Your task to perform on an android device: What's the news in Taiwan? Image 0: 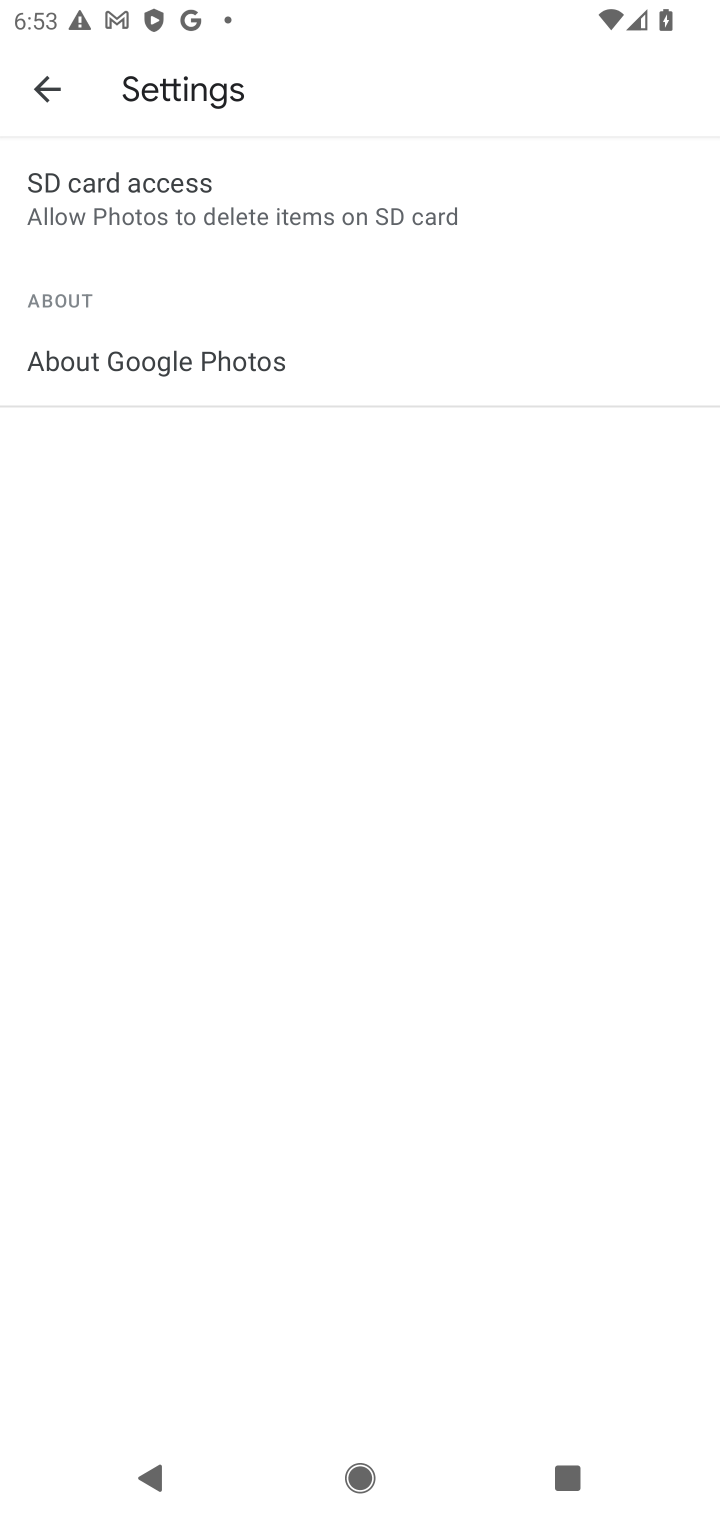
Step 0: press home button
Your task to perform on an android device: What's the news in Taiwan? Image 1: 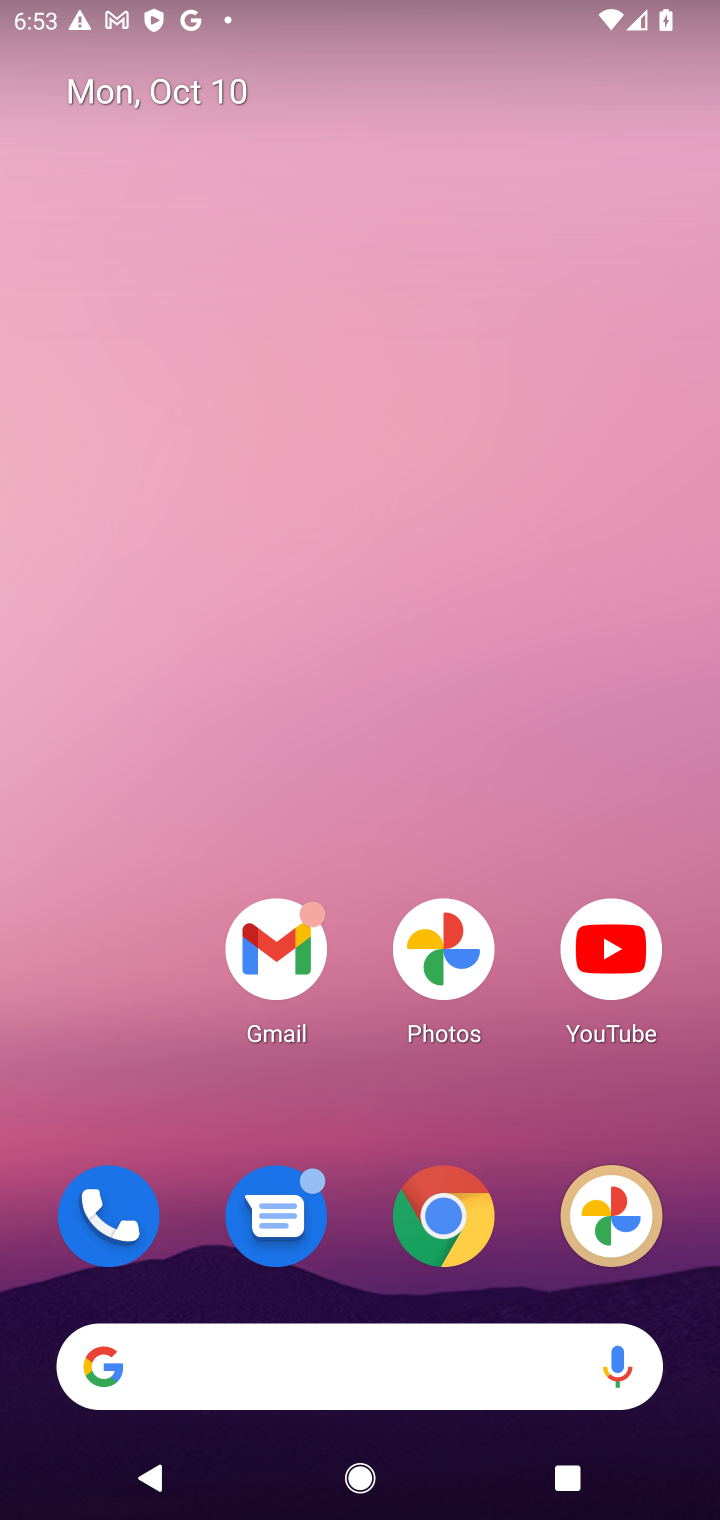
Step 1: drag from (420, 1305) to (420, 361)
Your task to perform on an android device: What's the news in Taiwan? Image 2: 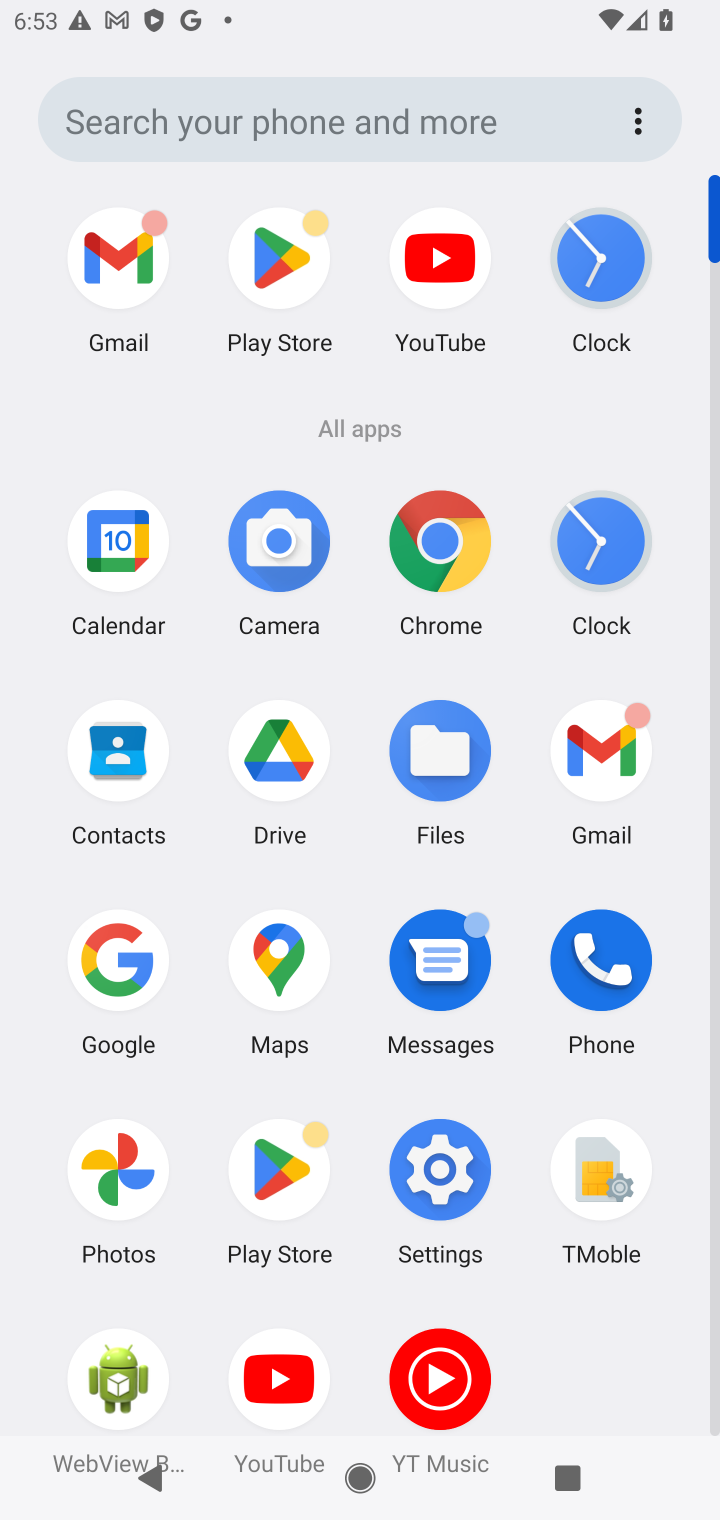
Step 2: click (100, 971)
Your task to perform on an android device: What's the news in Taiwan? Image 3: 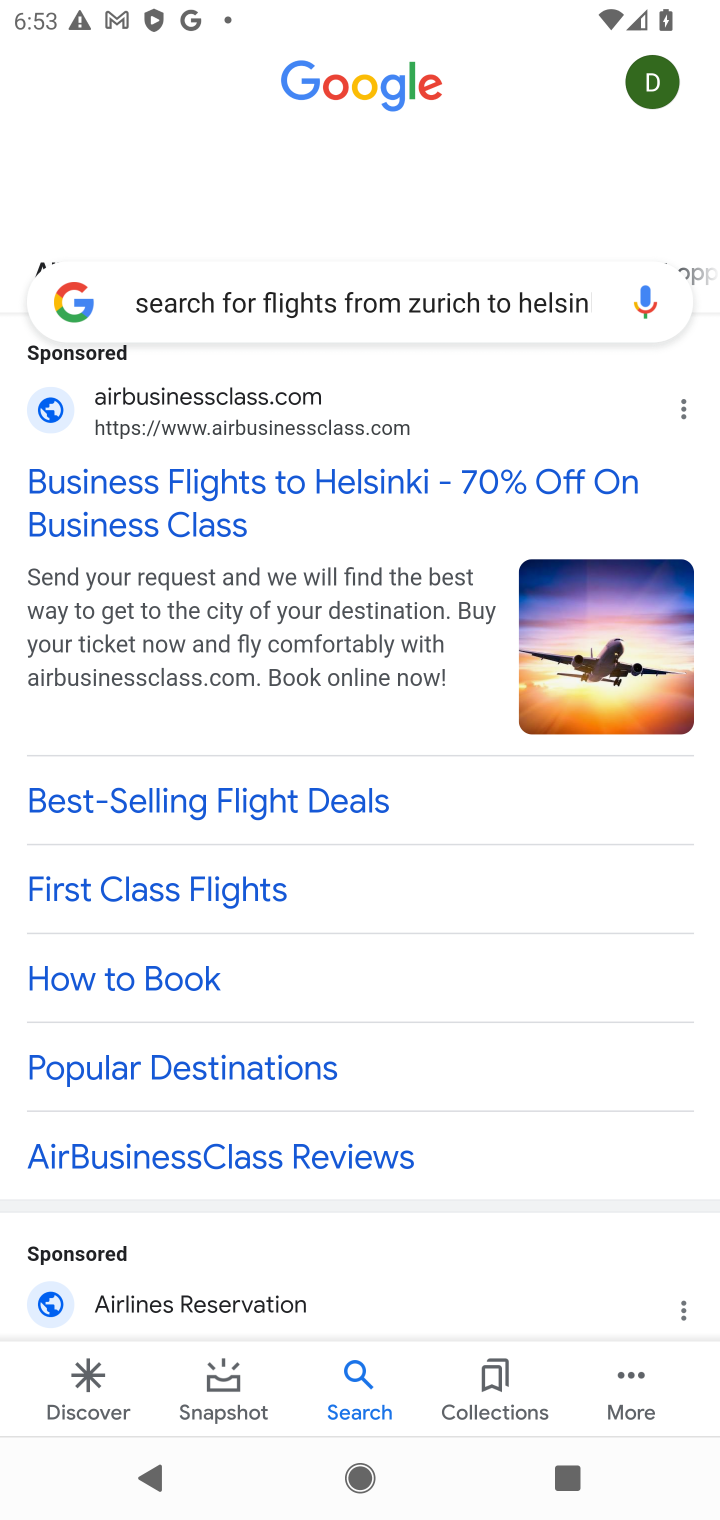
Step 3: click (346, 310)
Your task to perform on an android device: What's the news in Taiwan? Image 4: 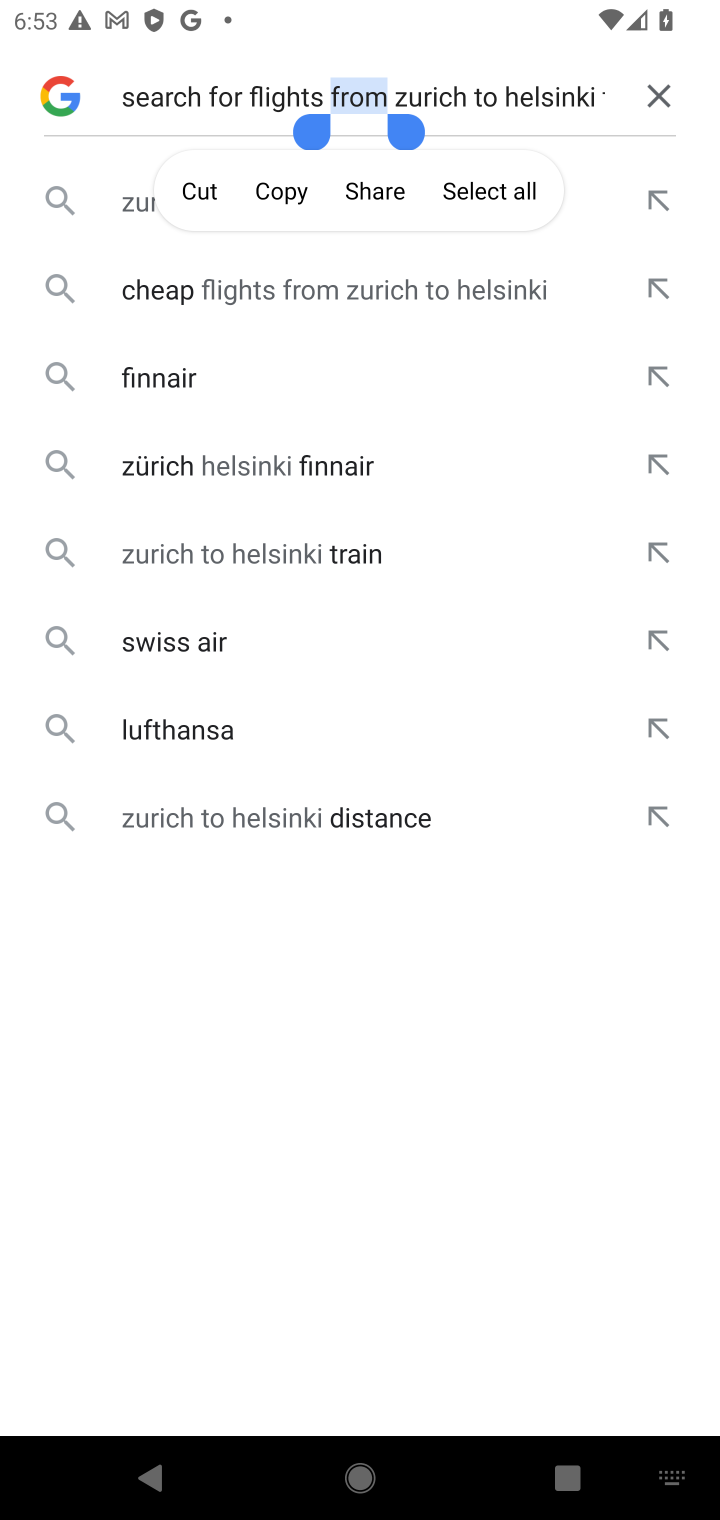
Step 4: click (592, 139)
Your task to perform on an android device: What's the news in Taiwan? Image 5: 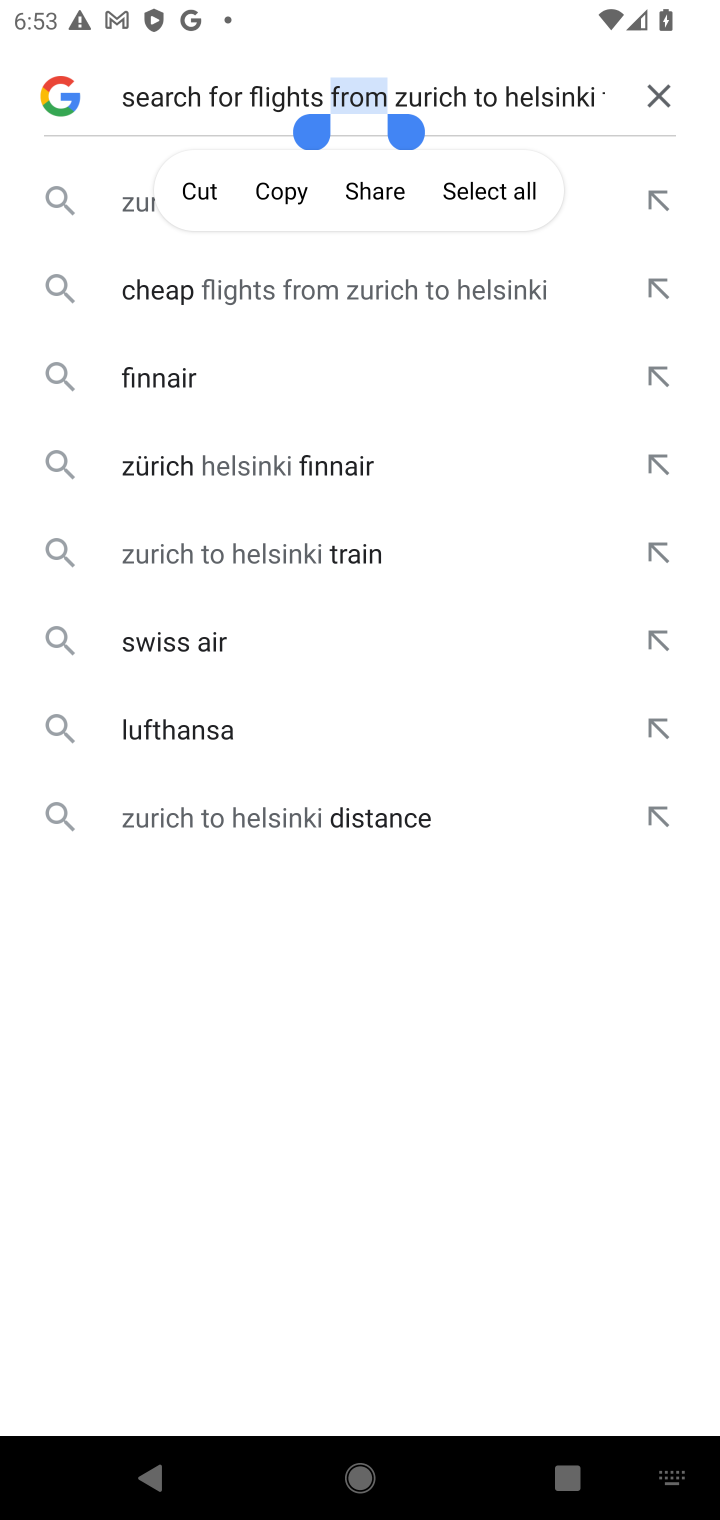
Step 5: click (650, 107)
Your task to perform on an android device: What's the news in Taiwan? Image 6: 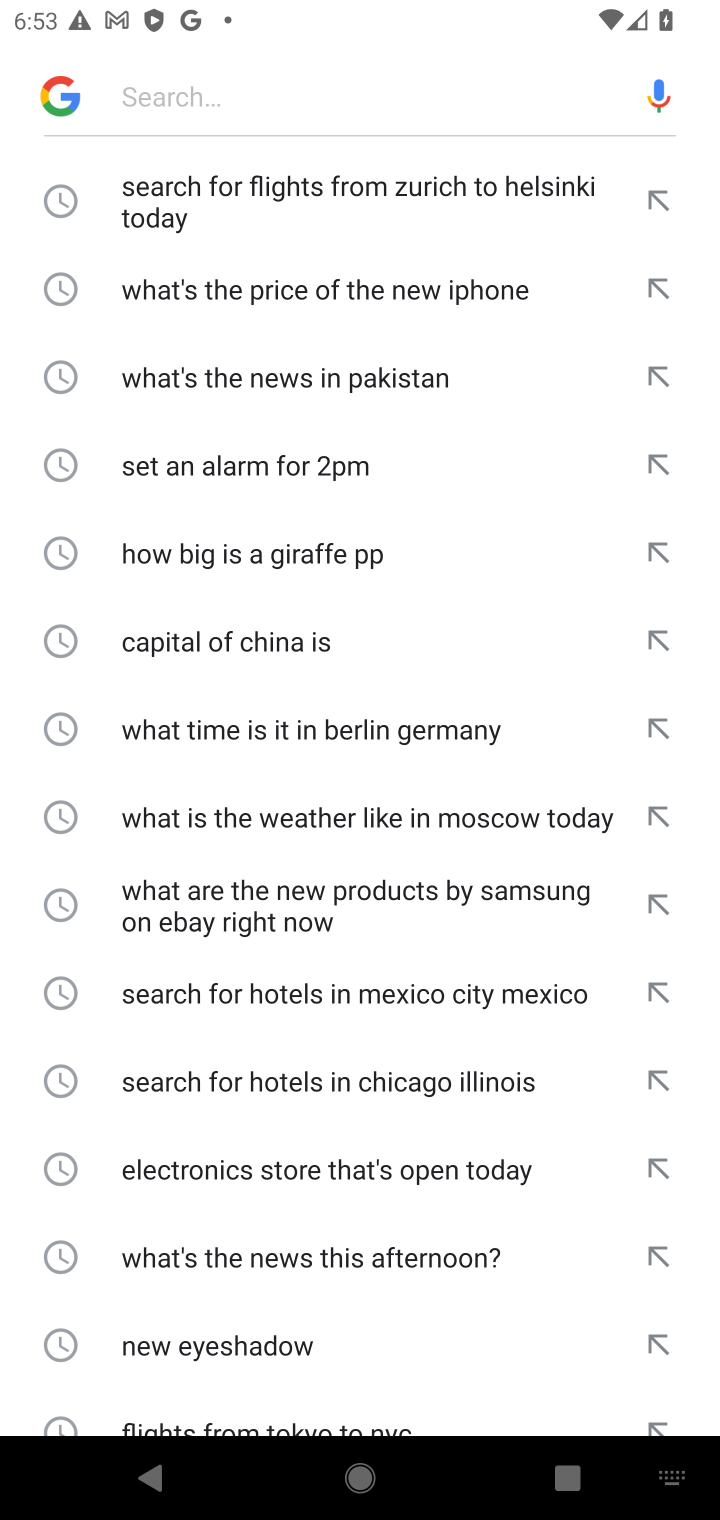
Step 6: type "What's the news in Taiwan?"
Your task to perform on an android device: What's the news in Taiwan? Image 7: 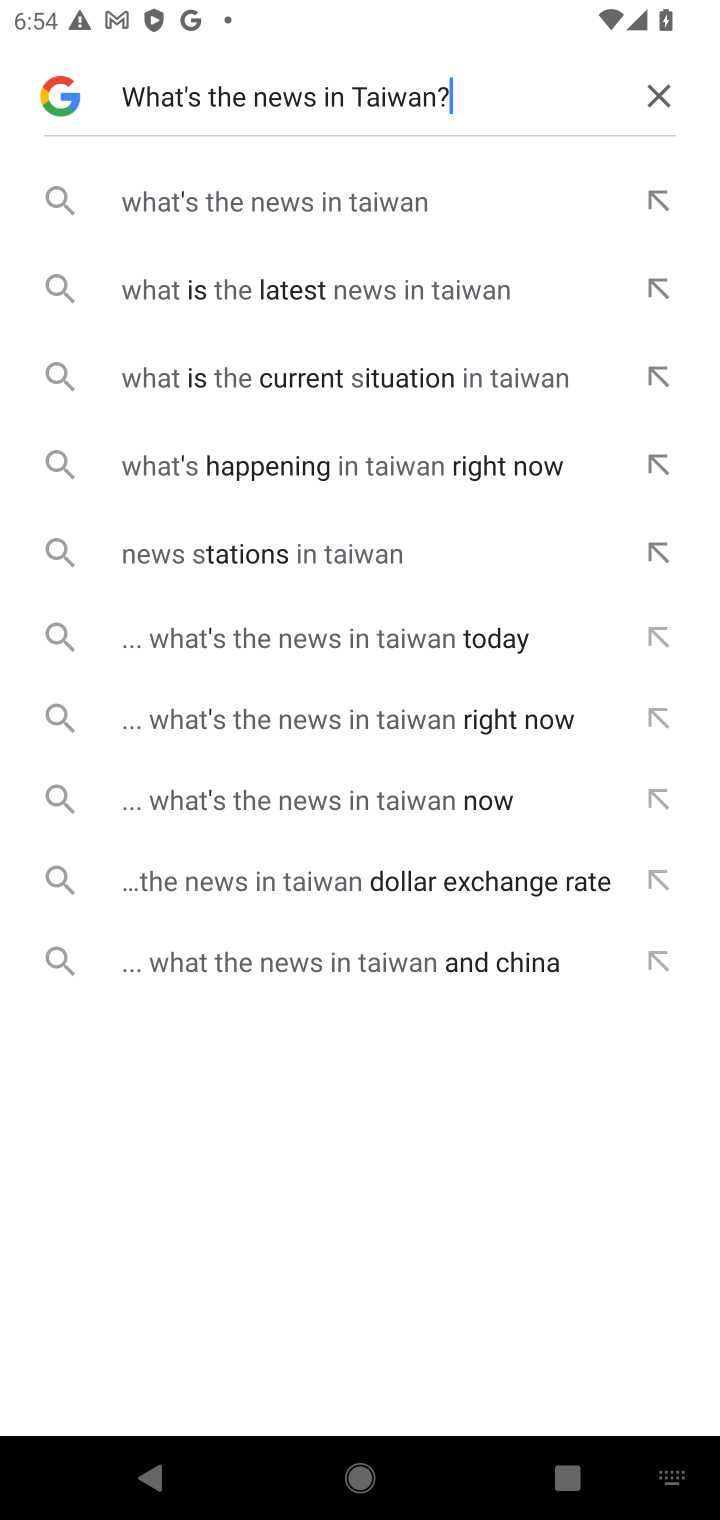
Step 7: click (352, 193)
Your task to perform on an android device: What's the news in Taiwan? Image 8: 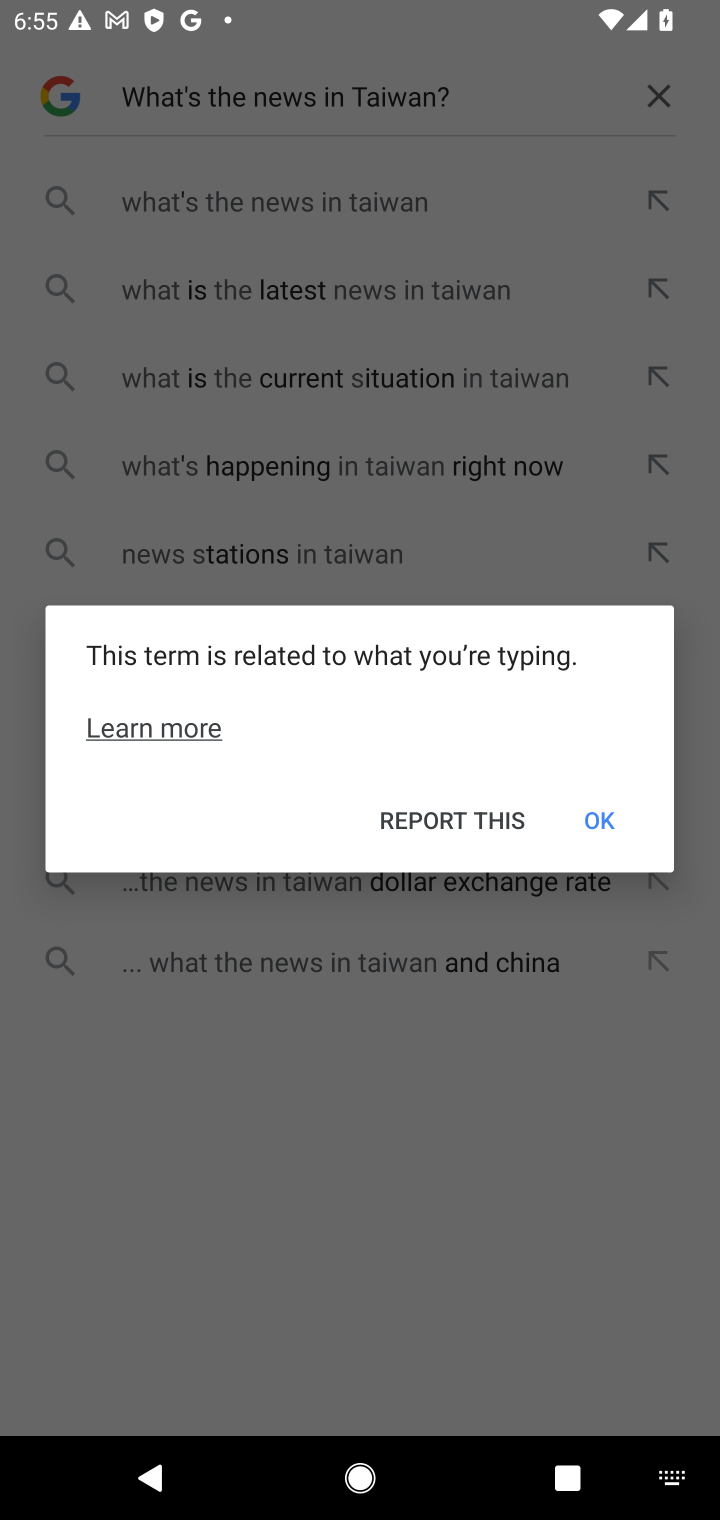
Step 8: click (604, 978)
Your task to perform on an android device: What's the news in Taiwan? Image 9: 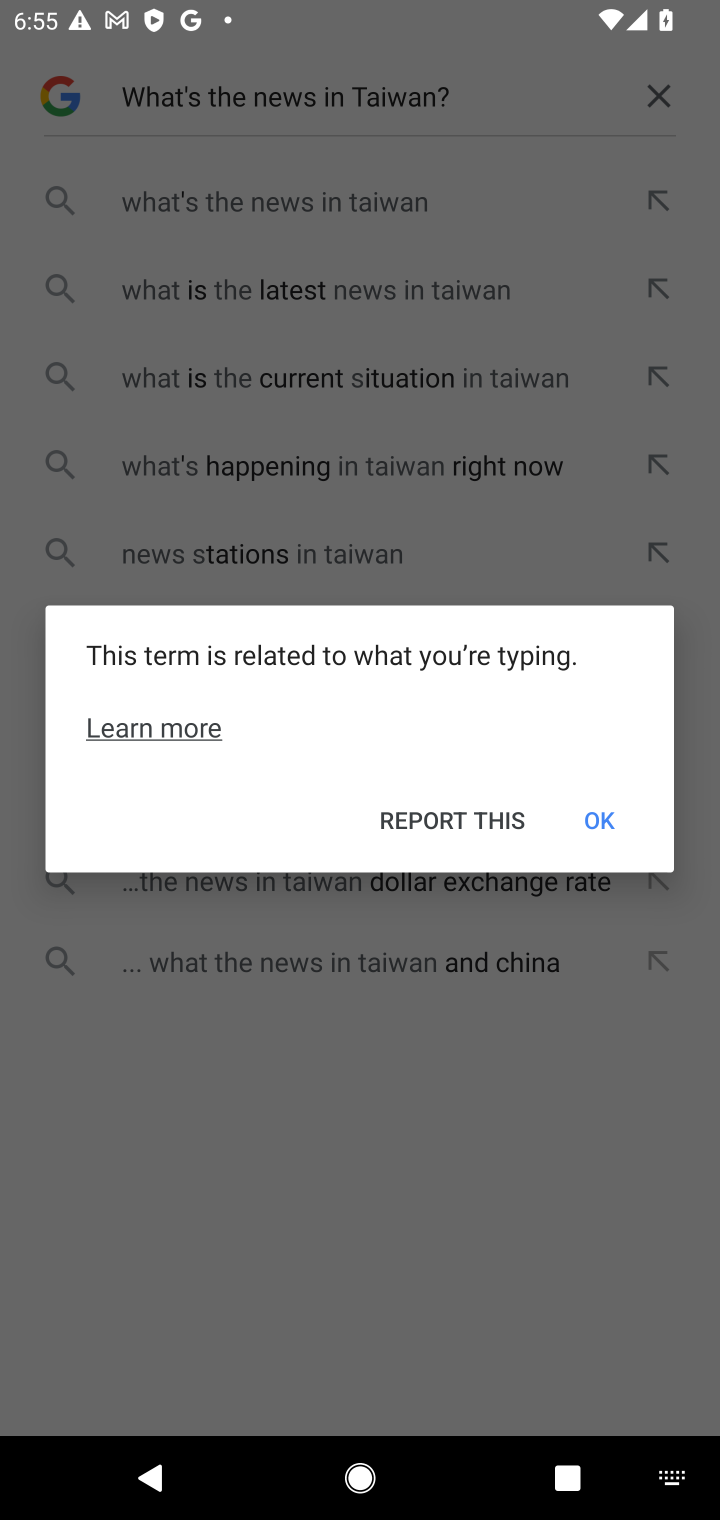
Step 9: click (614, 830)
Your task to perform on an android device: What's the news in Taiwan? Image 10: 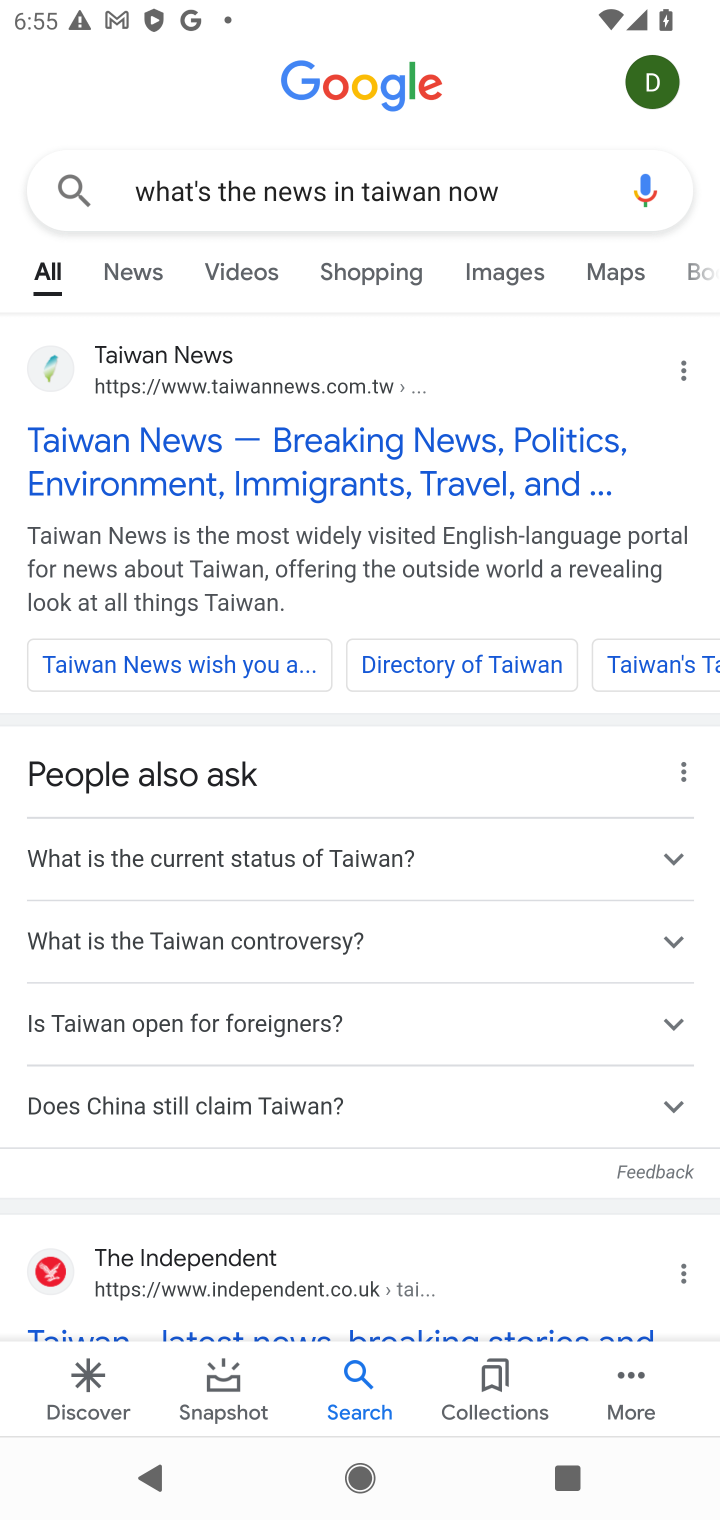
Step 10: click (251, 467)
Your task to perform on an android device: What's the news in Taiwan? Image 11: 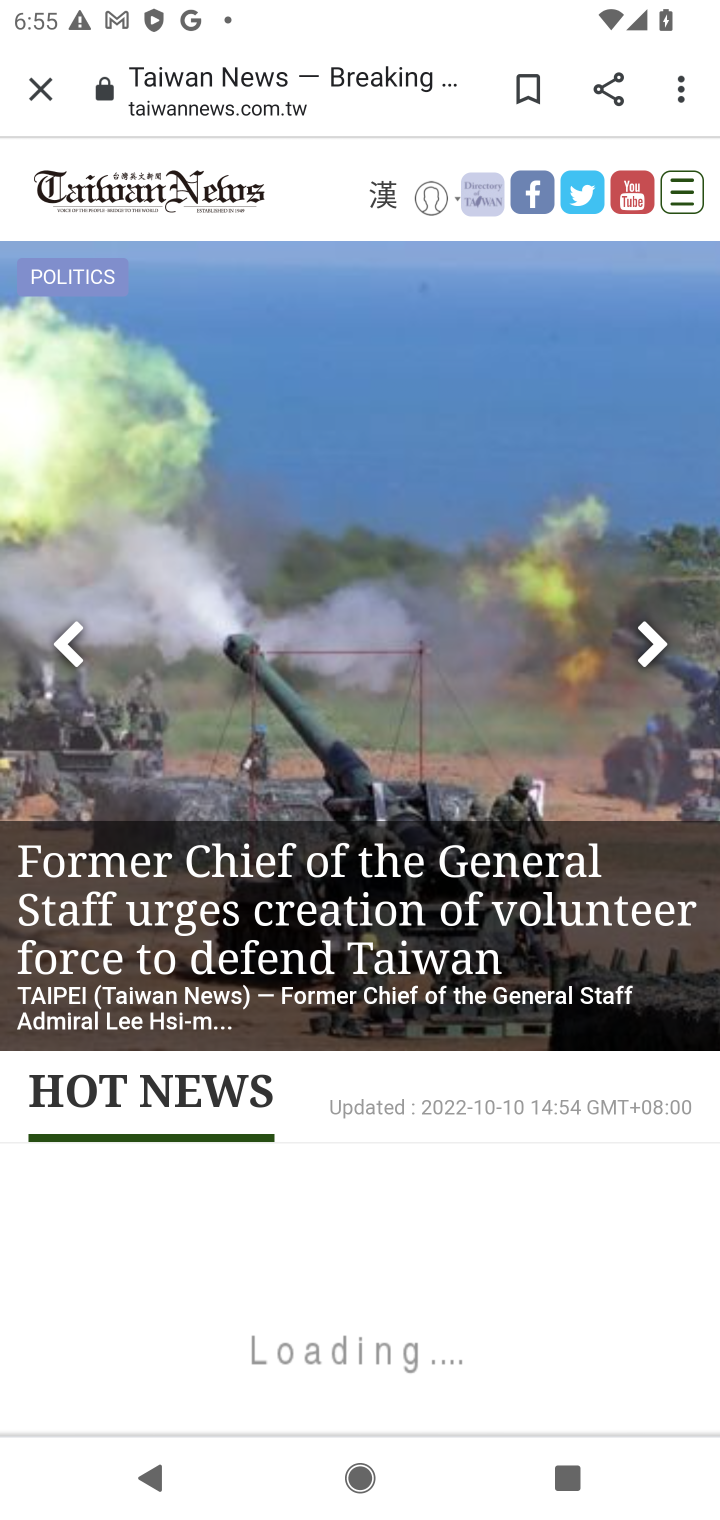
Step 11: task complete